Your task to perform on an android device: Open display settings Image 0: 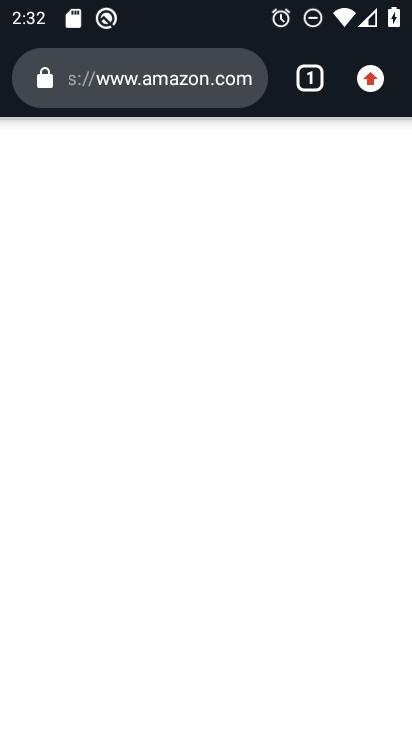
Step 0: press home button
Your task to perform on an android device: Open display settings Image 1: 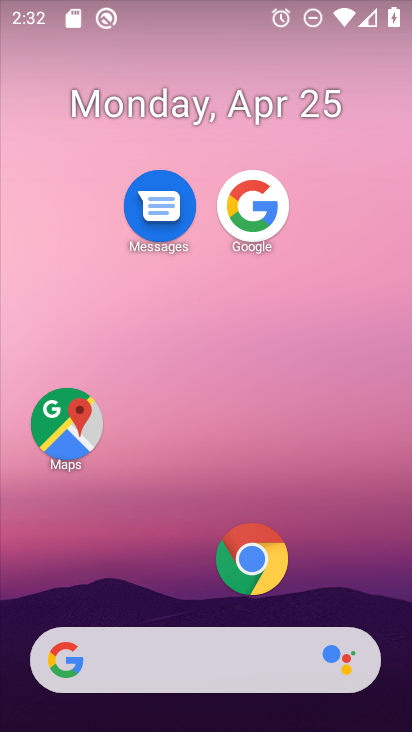
Step 1: drag from (164, 553) to (199, 139)
Your task to perform on an android device: Open display settings Image 2: 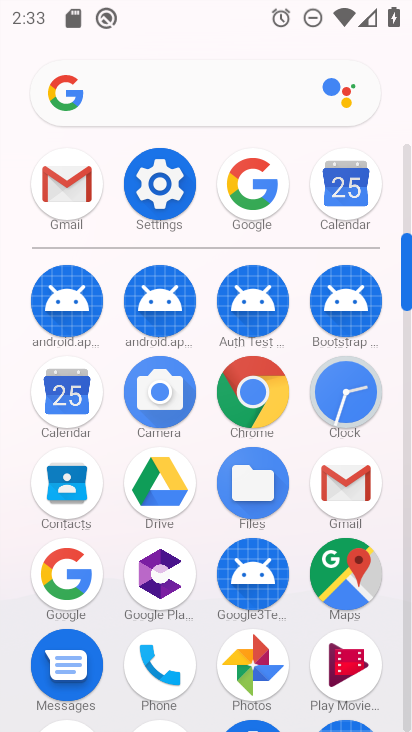
Step 2: click (156, 184)
Your task to perform on an android device: Open display settings Image 3: 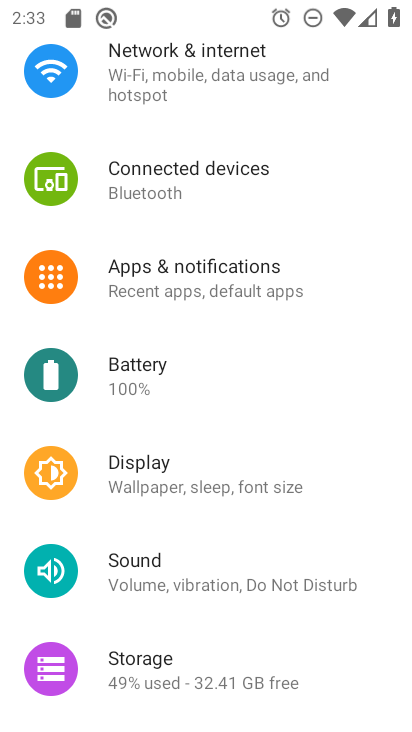
Step 3: click (155, 476)
Your task to perform on an android device: Open display settings Image 4: 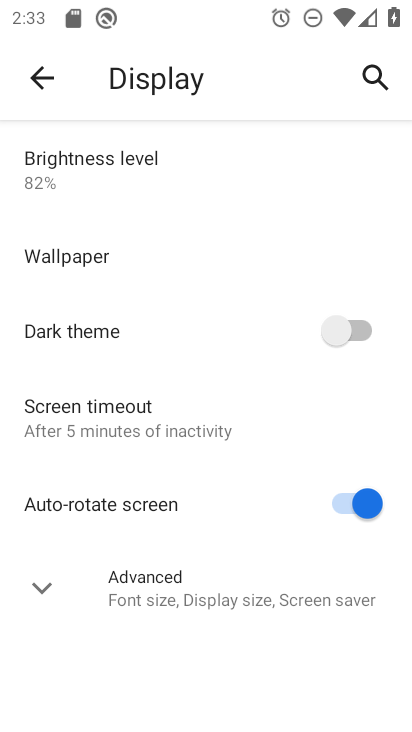
Step 4: task complete